Your task to perform on an android device: check google app version Image 0: 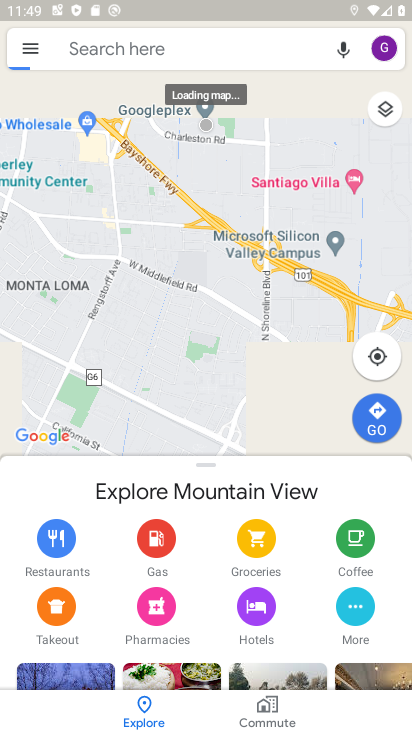
Step 0: press home button
Your task to perform on an android device: check google app version Image 1: 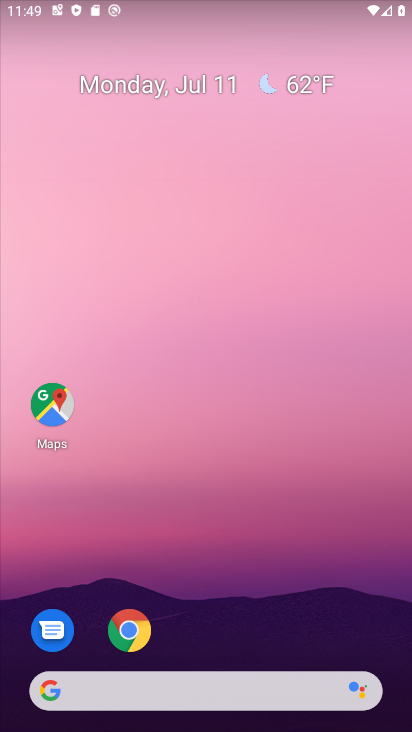
Step 1: drag from (181, 640) to (291, 50)
Your task to perform on an android device: check google app version Image 2: 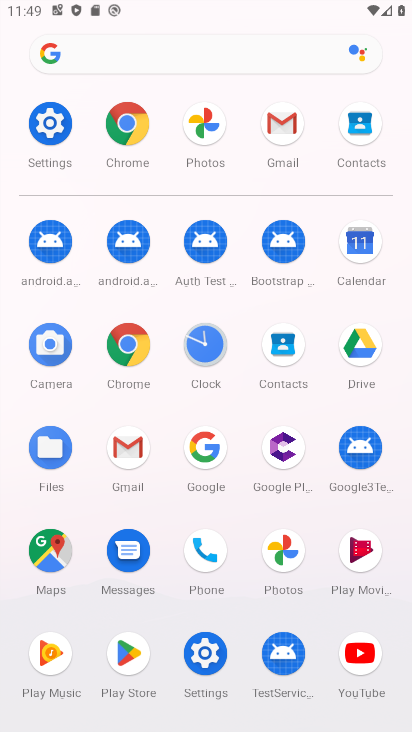
Step 2: click (133, 354)
Your task to perform on an android device: check google app version Image 3: 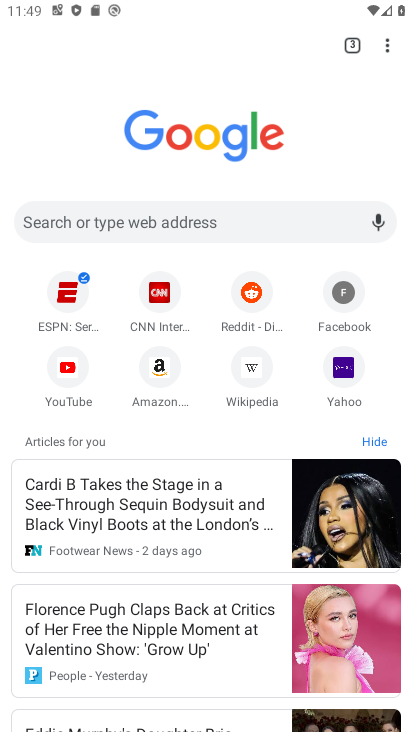
Step 3: drag from (389, 40) to (222, 427)
Your task to perform on an android device: check google app version Image 4: 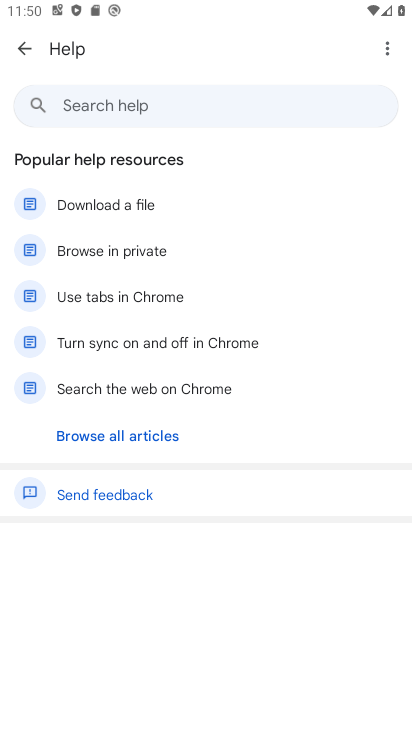
Step 4: click (385, 40)
Your task to perform on an android device: check google app version Image 5: 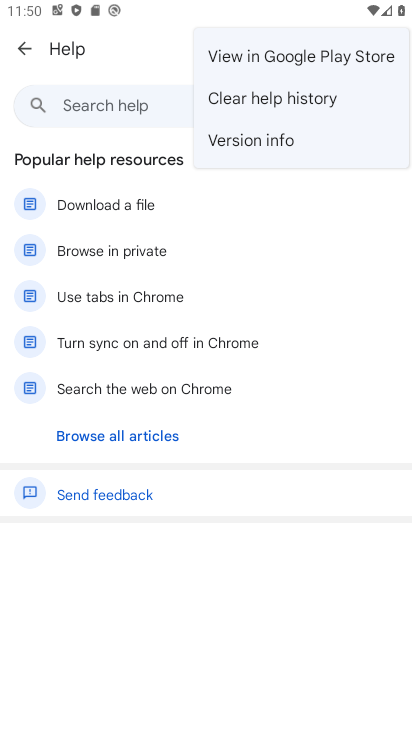
Step 5: click (294, 151)
Your task to perform on an android device: check google app version Image 6: 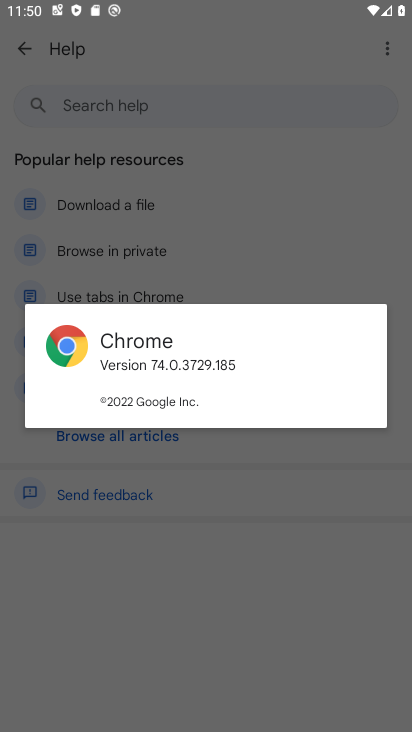
Step 6: task complete